Your task to perform on an android device: check data usage Image 0: 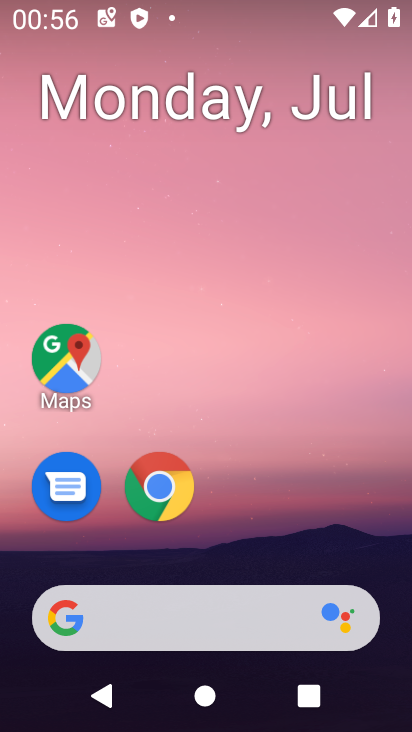
Step 0: press home button
Your task to perform on an android device: check data usage Image 1: 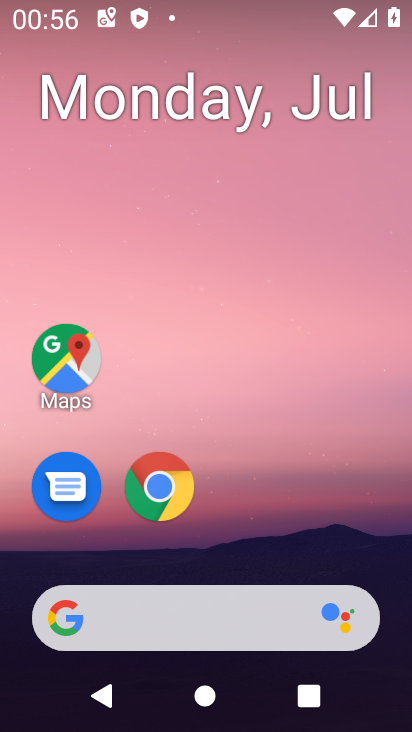
Step 1: drag from (379, 549) to (364, 162)
Your task to perform on an android device: check data usage Image 2: 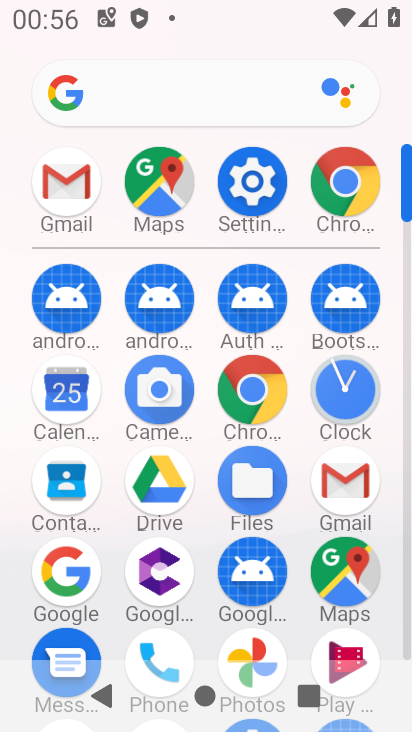
Step 2: click (240, 177)
Your task to perform on an android device: check data usage Image 3: 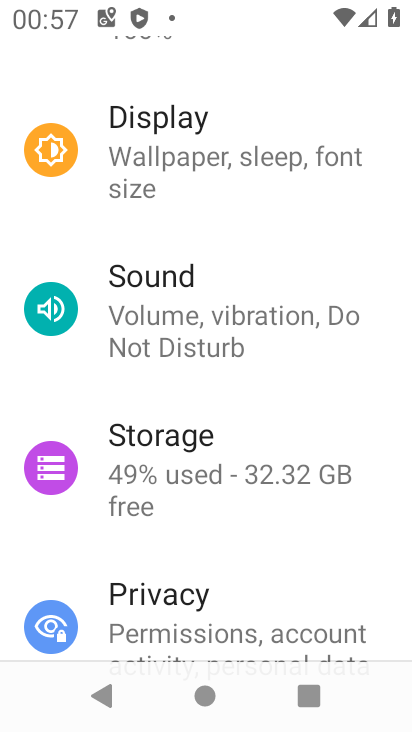
Step 3: drag from (339, 219) to (347, 343)
Your task to perform on an android device: check data usage Image 4: 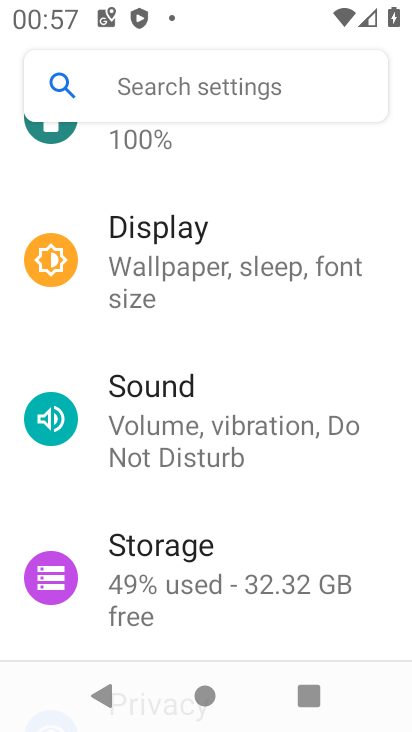
Step 4: drag from (380, 168) to (380, 318)
Your task to perform on an android device: check data usage Image 5: 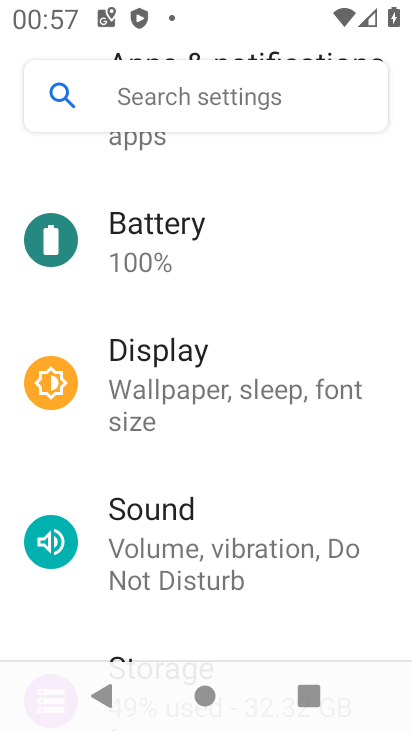
Step 5: drag from (355, 243) to (356, 388)
Your task to perform on an android device: check data usage Image 6: 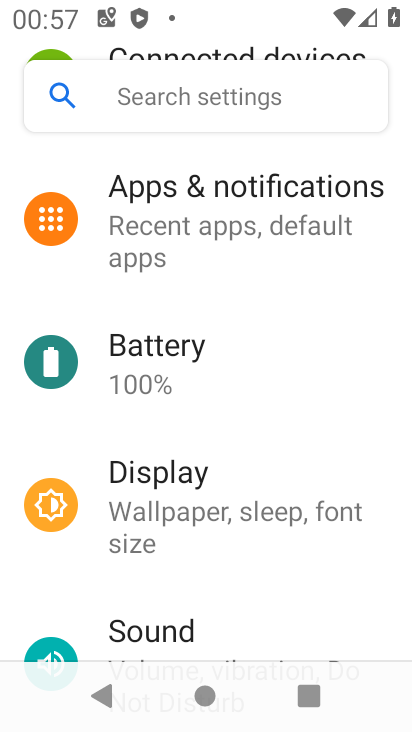
Step 6: drag from (377, 143) to (374, 378)
Your task to perform on an android device: check data usage Image 7: 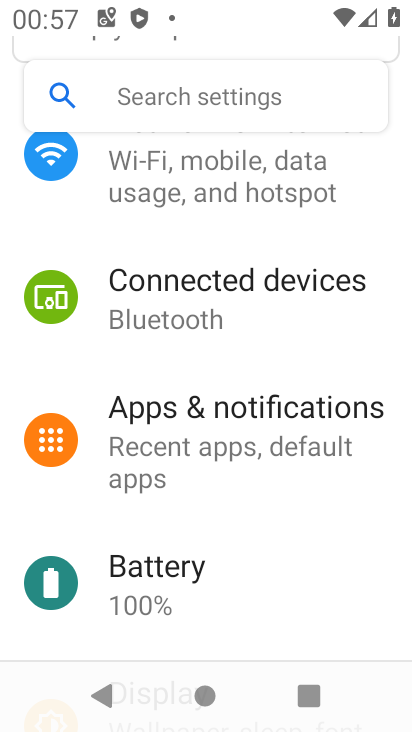
Step 7: drag from (373, 152) to (376, 445)
Your task to perform on an android device: check data usage Image 8: 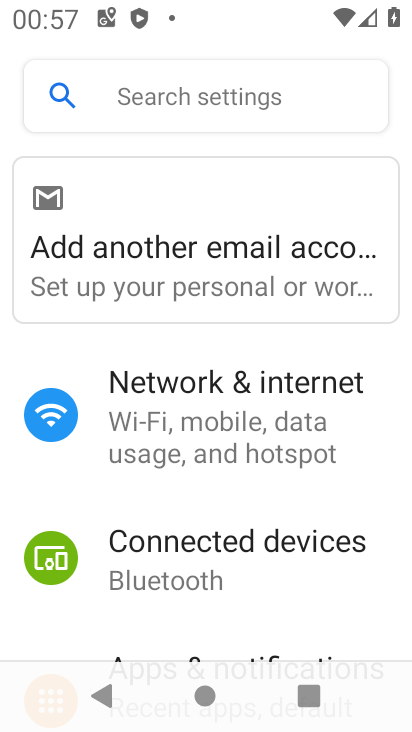
Step 8: drag from (372, 459) to (379, 347)
Your task to perform on an android device: check data usage Image 9: 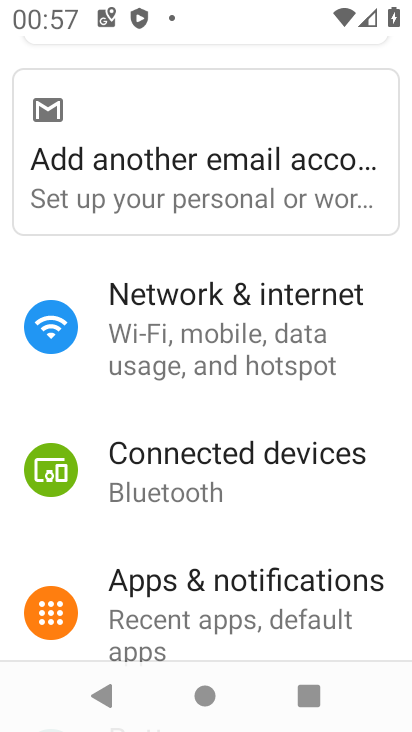
Step 9: drag from (371, 490) to (379, 379)
Your task to perform on an android device: check data usage Image 10: 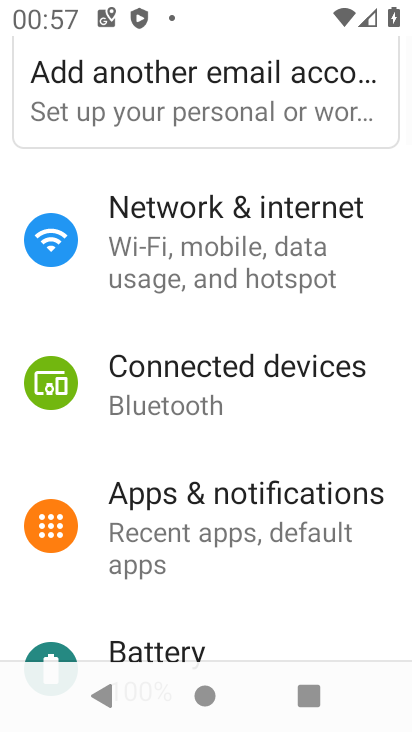
Step 10: drag from (360, 555) to (368, 410)
Your task to perform on an android device: check data usage Image 11: 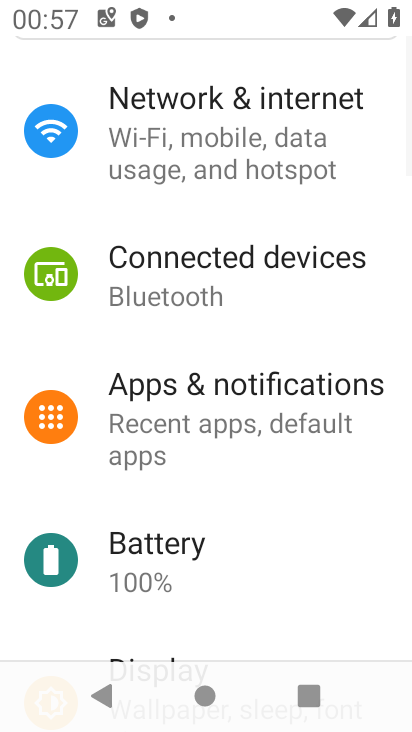
Step 11: drag from (348, 539) to (353, 432)
Your task to perform on an android device: check data usage Image 12: 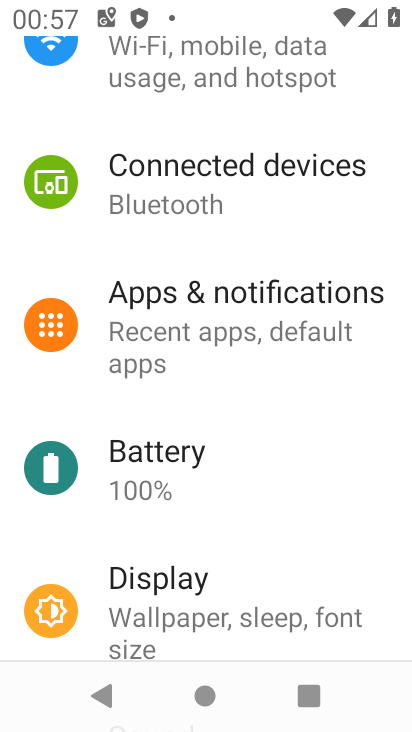
Step 12: drag from (346, 210) to (350, 312)
Your task to perform on an android device: check data usage Image 13: 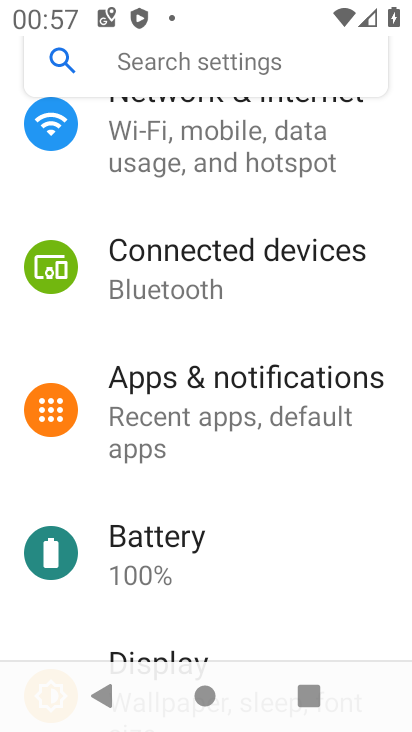
Step 13: drag from (371, 198) to (373, 309)
Your task to perform on an android device: check data usage Image 14: 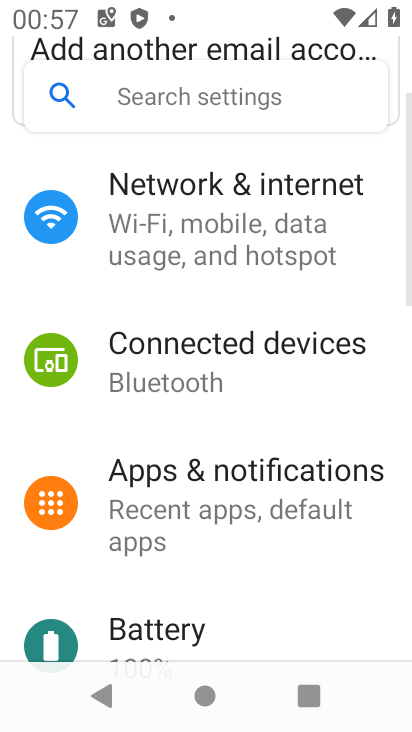
Step 14: drag from (369, 219) to (370, 480)
Your task to perform on an android device: check data usage Image 15: 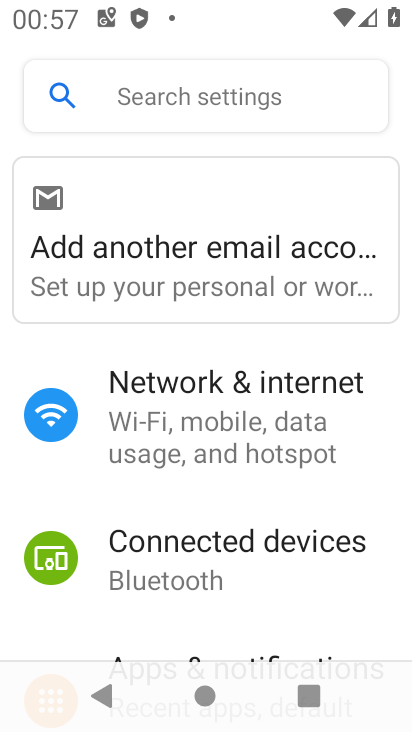
Step 15: click (316, 409)
Your task to perform on an android device: check data usage Image 16: 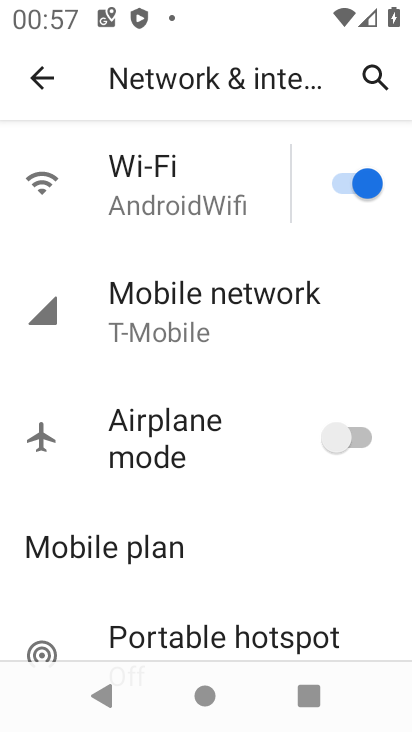
Step 16: click (195, 331)
Your task to perform on an android device: check data usage Image 17: 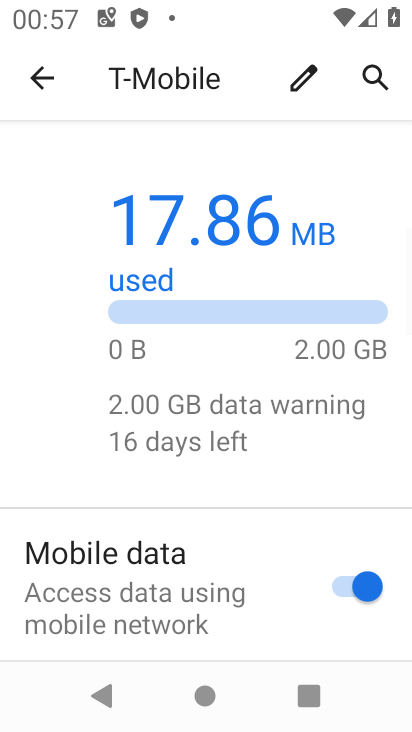
Step 17: drag from (227, 536) to (226, 417)
Your task to perform on an android device: check data usage Image 18: 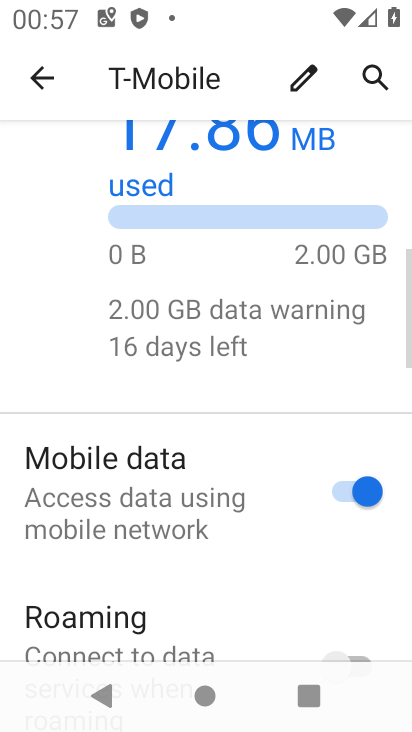
Step 18: drag from (238, 553) to (232, 406)
Your task to perform on an android device: check data usage Image 19: 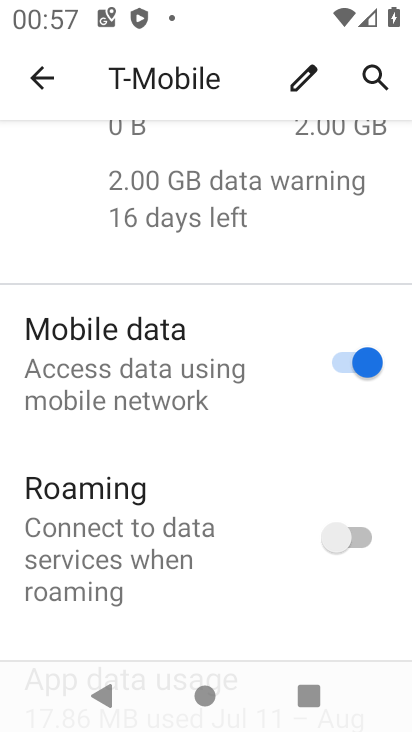
Step 19: drag from (193, 565) to (200, 385)
Your task to perform on an android device: check data usage Image 20: 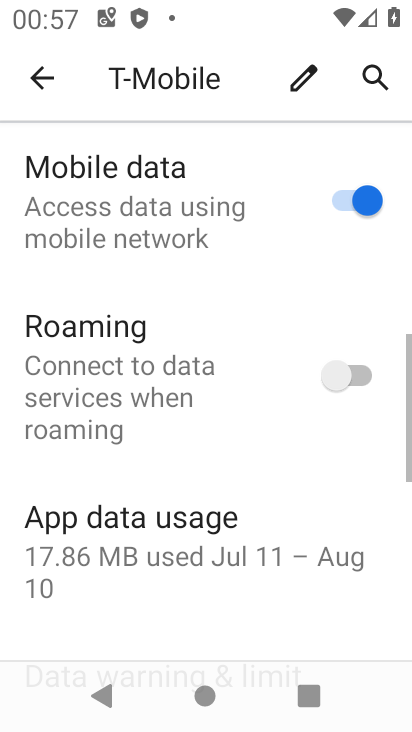
Step 20: drag from (199, 559) to (210, 401)
Your task to perform on an android device: check data usage Image 21: 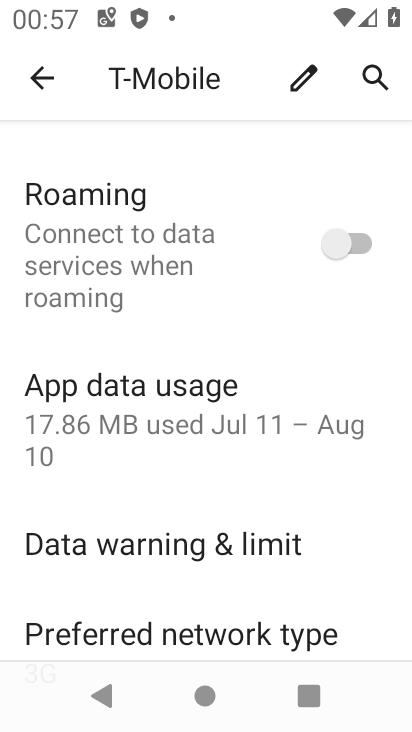
Step 21: drag from (193, 531) to (191, 397)
Your task to perform on an android device: check data usage Image 22: 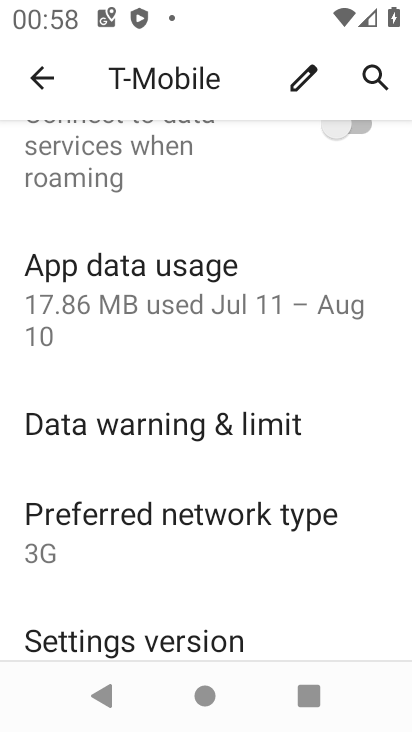
Step 22: click (154, 298)
Your task to perform on an android device: check data usage Image 23: 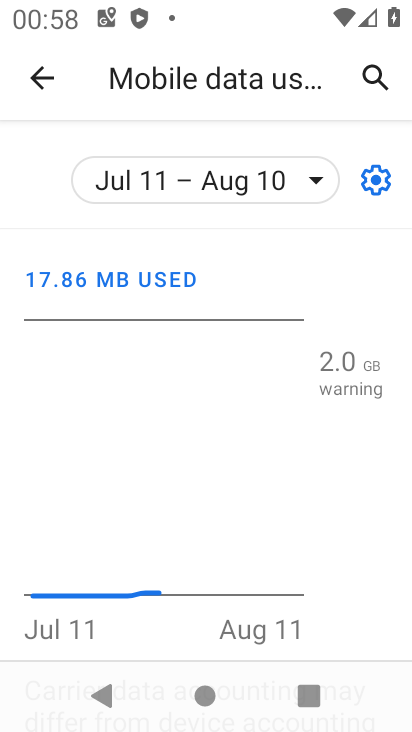
Step 23: task complete